Your task to perform on an android device: toggle translation in the chrome app Image 0: 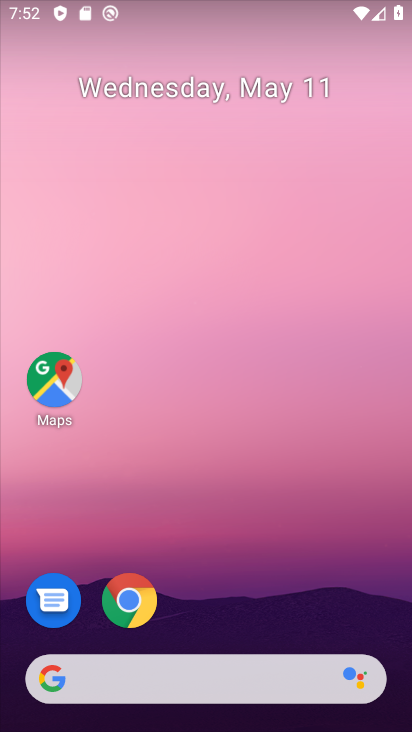
Step 0: drag from (214, 643) to (191, 234)
Your task to perform on an android device: toggle translation in the chrome app Image 1: 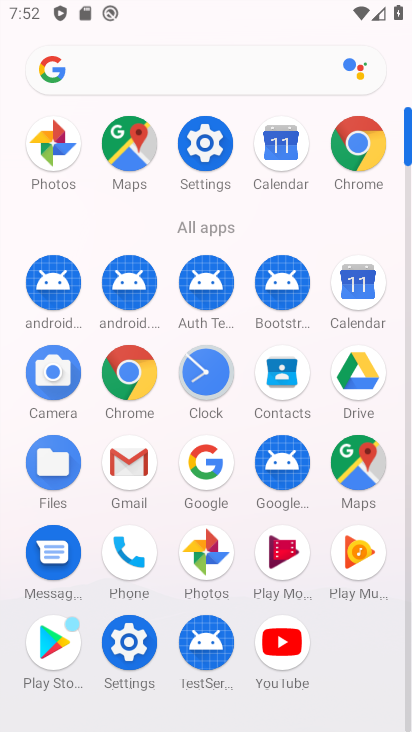
Step 1: click (134, 384)
Your task to perform on an android device: toggle translation in the chrome app Image 2: 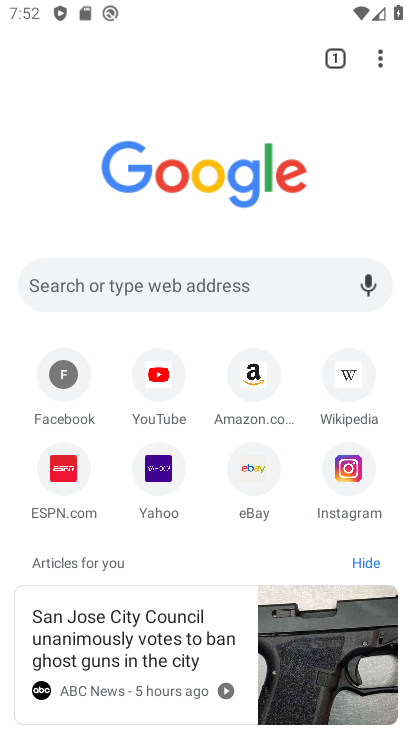
Step 2: click (377, 63)
Your task to perform on an android device: toggle translation in the chrome app Image 3: 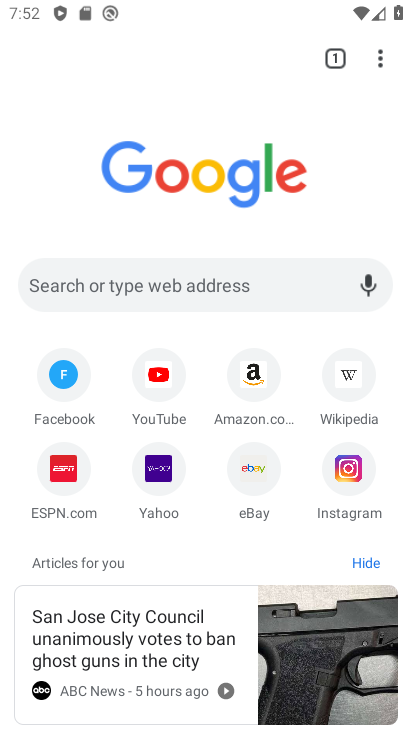
Step 3: click (383, 63)
Your task to perform on an android device: toggle translation in the chrome app Image 4: 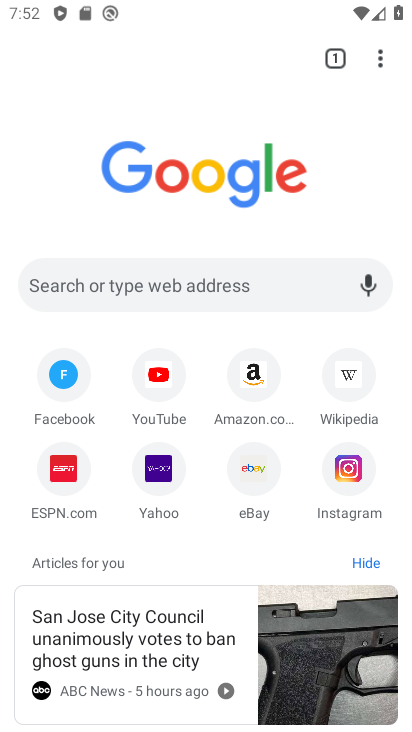
Step 4: click (384, 54)
Your task to perform on an android device: toggle translation in the chrome app Image 5: 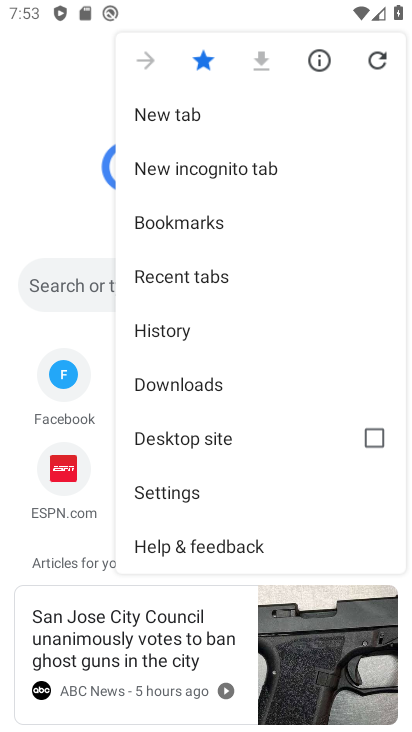
Step 5: click (241, 485)
Your task to perform on an android device: toggle translation in the chrome app Image 6: 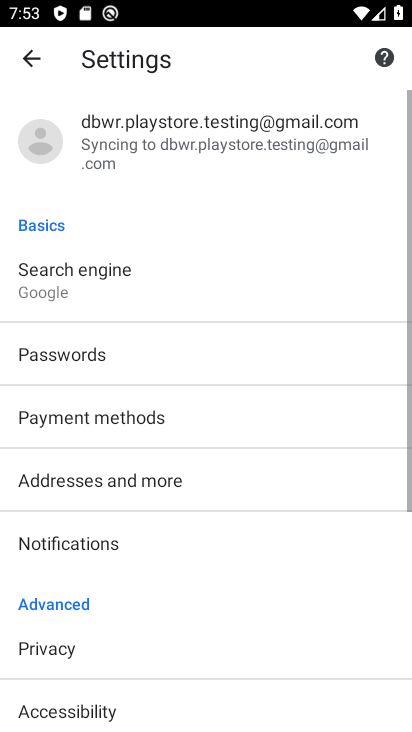
Step 6: drag from (182, 644) to (203, 213)
Your task to perform on an android device: toggle translation in the chrome app Image 7: 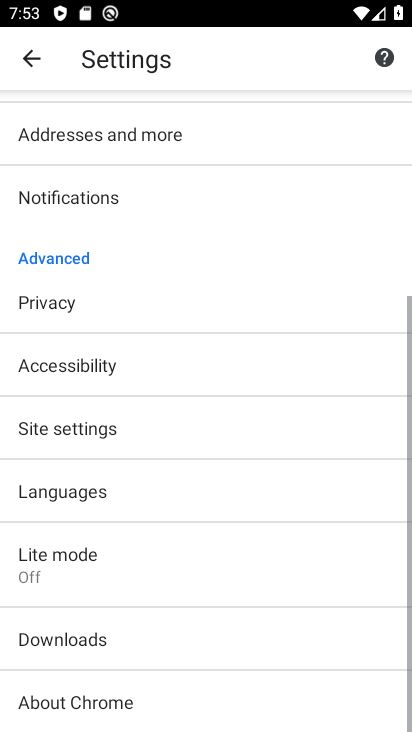
Step 7: click (161, 497)
Your task to perform on an android device: toggle translation in the chrome app Image 8: 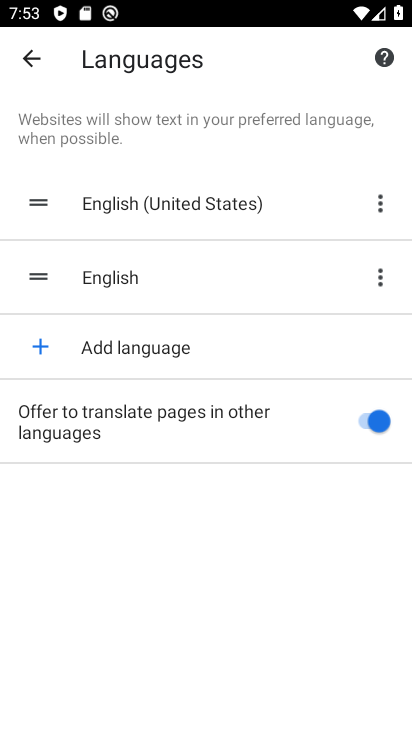
Step 8: click (370, 422)
Your task to perform on an android device: toggle translation in the chrome app Image 9: 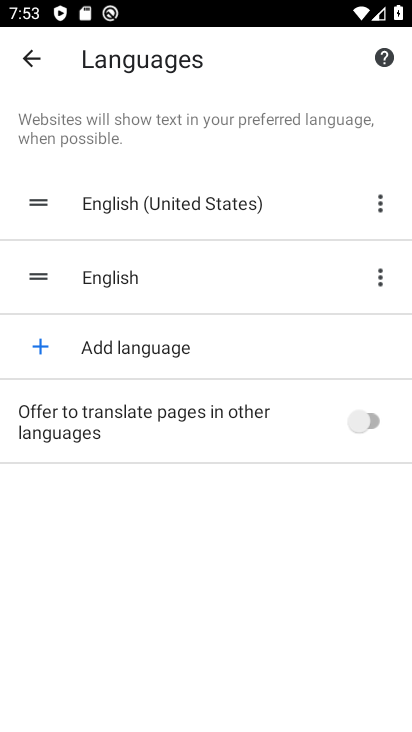
Step 9: task complete